Your task to perform on an android device: Open Chrome and go to settings Image 0: 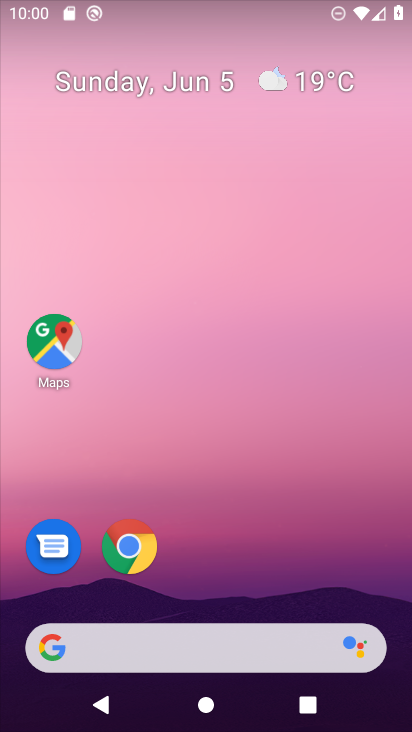
Step 0: click (144, 548)
Your task to perform on an android device: Open Chrome and go to settings Image 1: 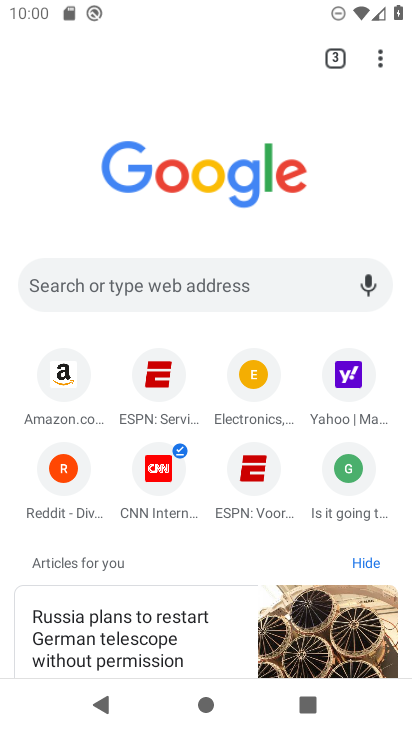
Step 1: click (379, 59)
Your task to perform on an android device: Open Chrome and go to settings Image 2: 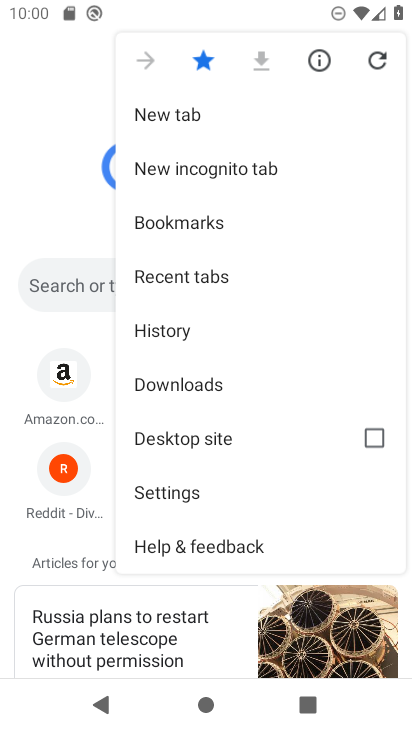
Step 2: click (181, 486)
Your task to perform on an android device: Open Chrome and go to settings Image 3: 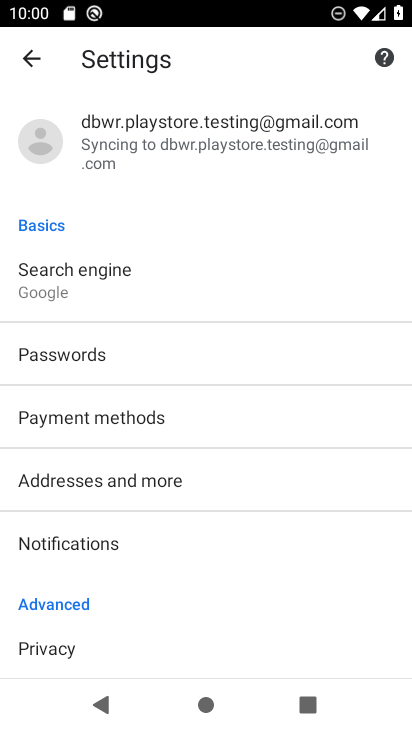
Step 3: task complete